Your task to perform on an android device: Search for Mexican restaurants on Maps Image 0: 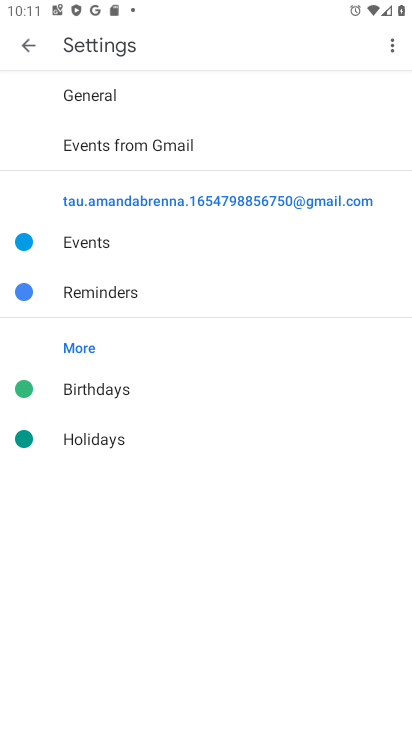
Step 0: press home button
Your task to perform on an android device: Search for Mexican restaurants on Maps Image 1: 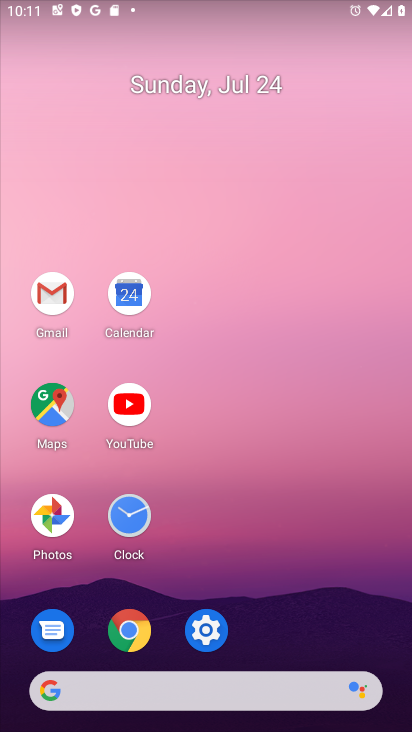
Step 1: click (48, 402)
Your task to perform on an android device: Search for Mexican restaurants on Maps Image 2: 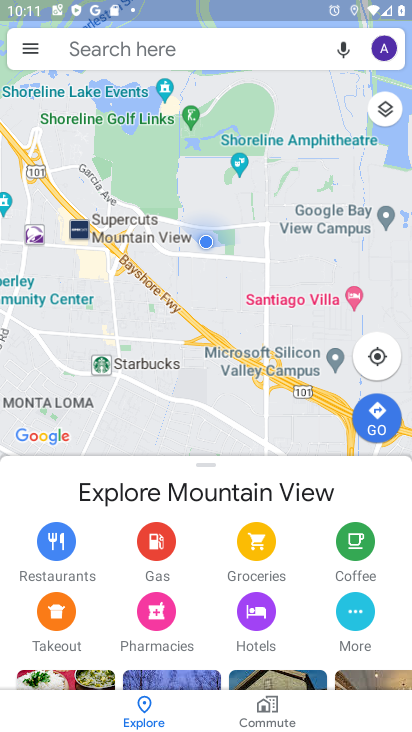
Step 2: click (123, 46)
Your task to perform on an android device: Search for Mexican restaurants on Maps Image 3: 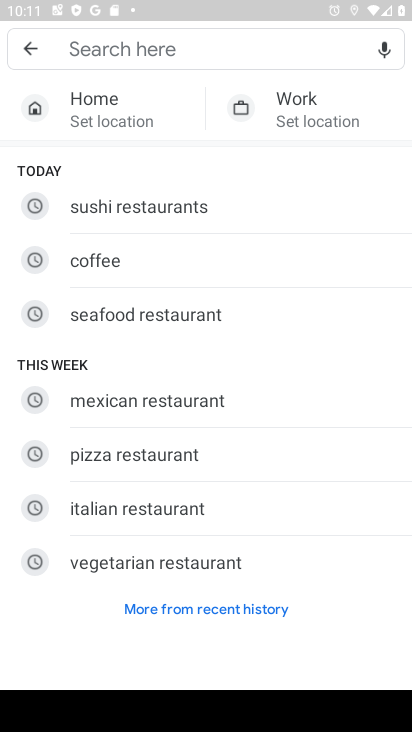
Step 3: click (115, 400)
Your task to perform on an android device: Search for Mexican restaurants on Maps Image 4: 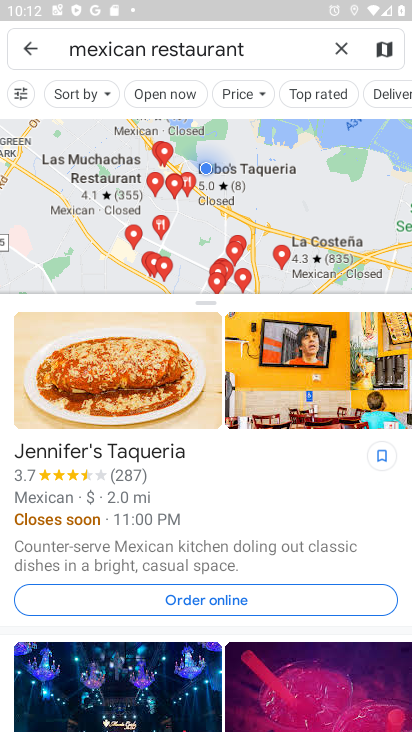
Step 4: task complete